Your task to perform on an android device: Open the map Image 0: 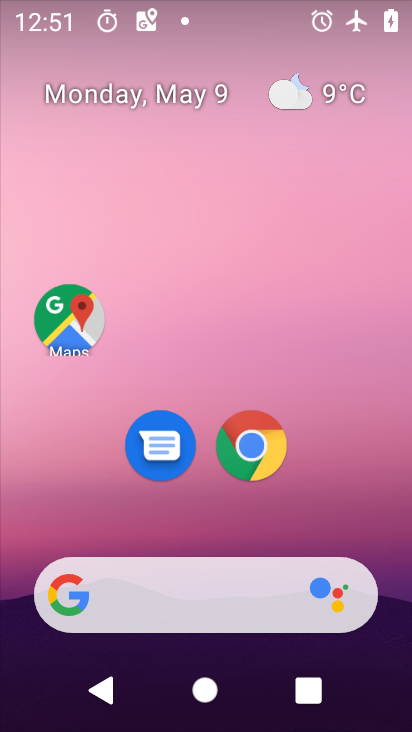
Step 0: click (67, 322)
Your task to perform on an android device: Open the map Image 1: 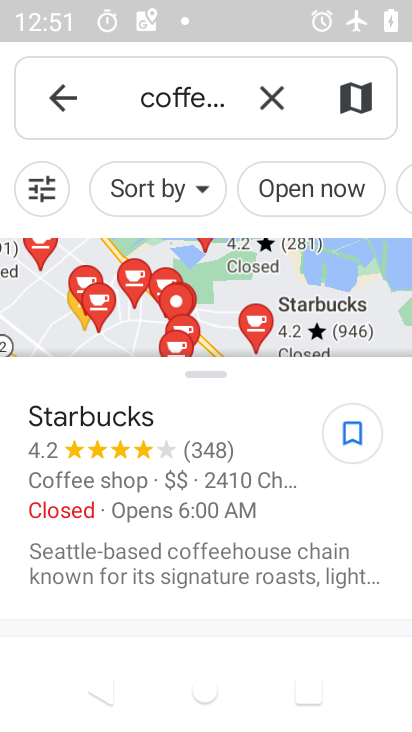
Step 1: click (267, 108)
Your task to perform on an android device: Open the map Image 2: 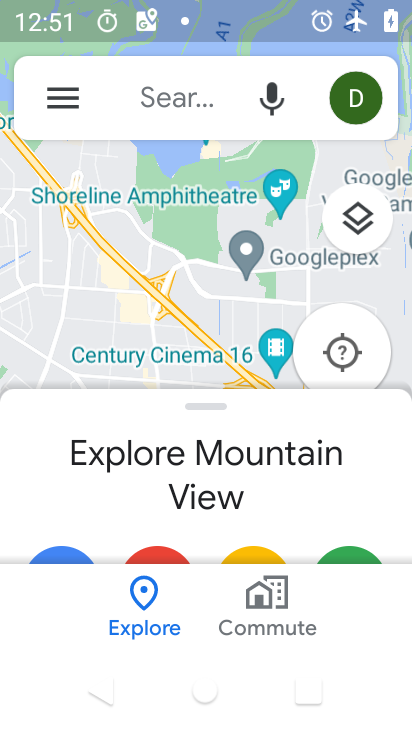
Step 2: task complete